Your task to perform on an android device: choose inbox layout in the gmail app Image 0: 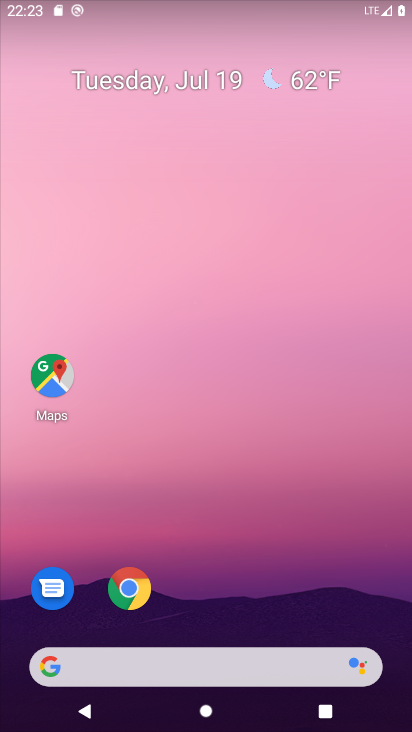
Step 0: drag from (203, 569) to (203, 147)
Your task to perform on an android device: choose inbox layout in the gmail app Image 1: 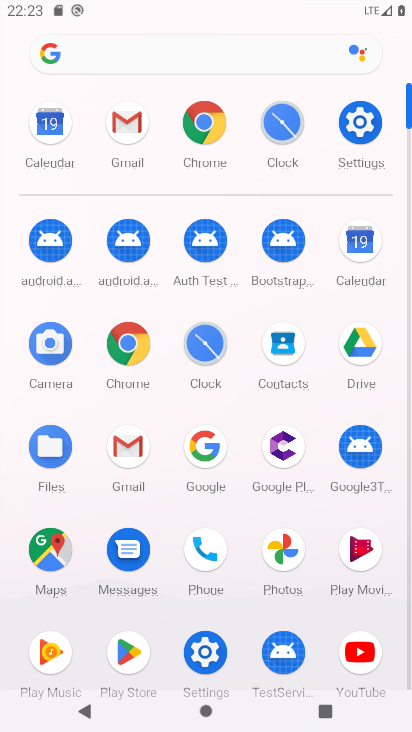
Step 1: click (134, 459)
Your task to perform on an android device: choose inbox layout in the gmail app Image 2: 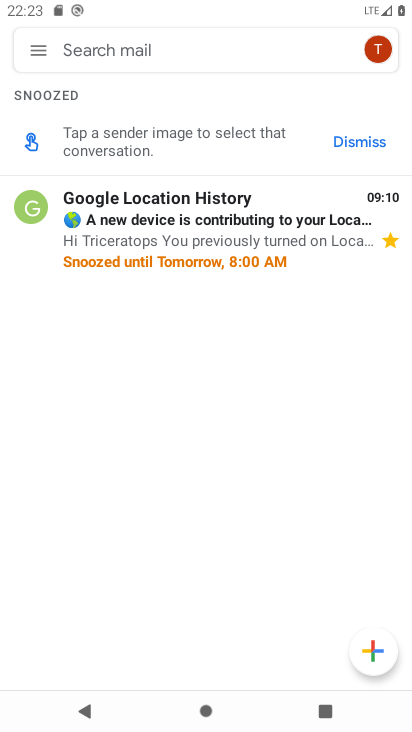
Step 2: click (39, 47)
Your task to perform on an android device: choose inbox layout in the gmail app Image 3: 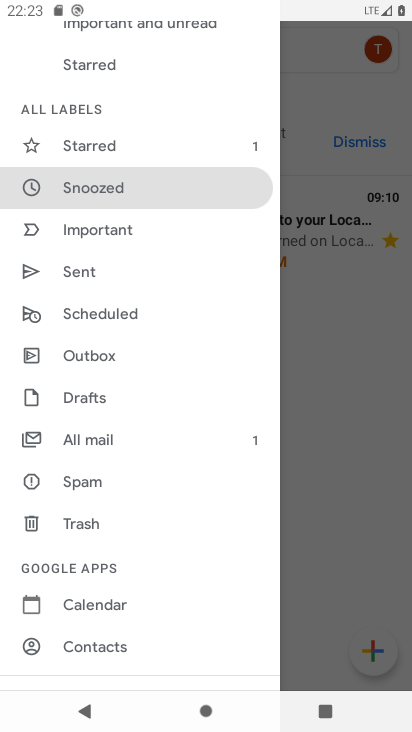
Step 3: drag from (101, 561) to (105, 356)
Your task to perform on an android device: choose inbox layout in the gmail app Image 4: 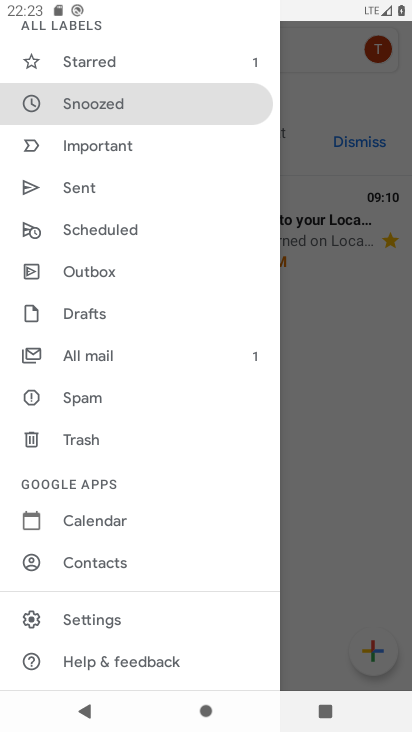
Step 4: click (98, 629)
Your task to perform on an android device: choose inbox layout in the gmail app Image 5: 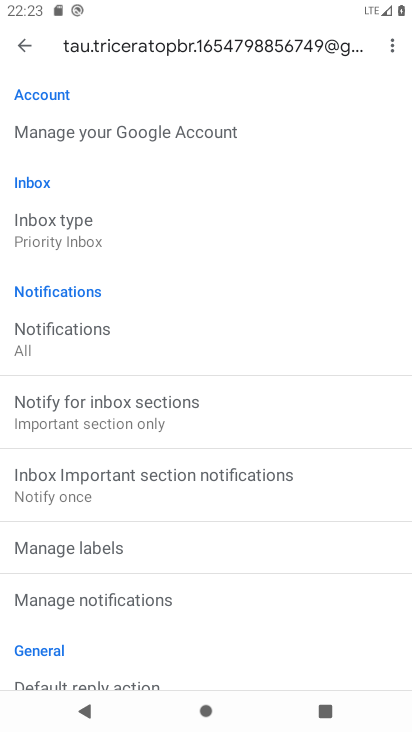
Step 5: click (57, 224)
Your task to perform on an android device: choose inbox layout in the gmail app Image 6: 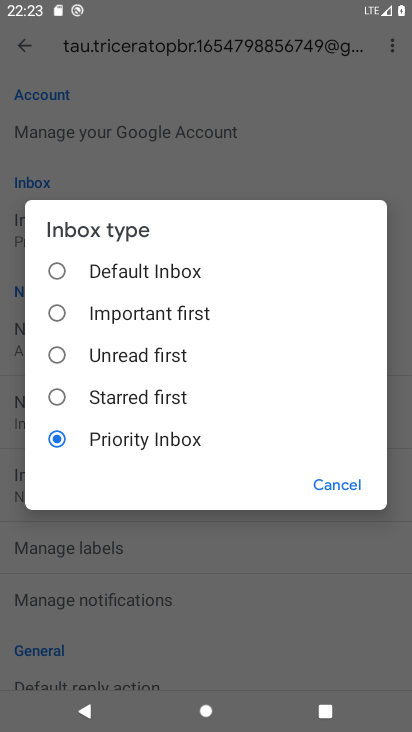
Step 6: click (52, 267)
Your task to perform on an android device: choose inbox layout in the gmail app Image 7: 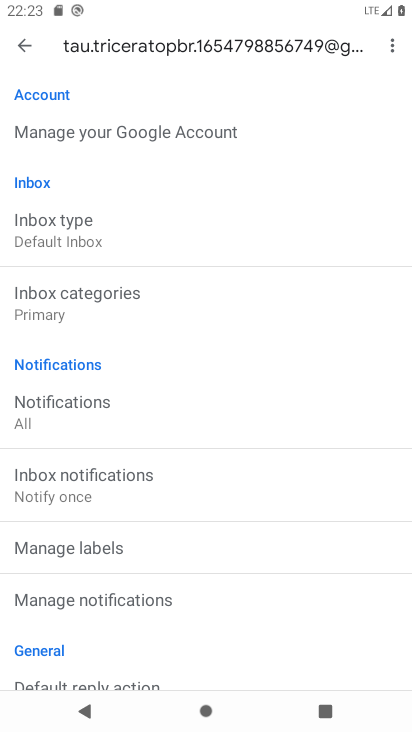
Step 7: task complete